Your task to perform on an android device: Empty the shopping cart on target. Add usb-c to usb-a to the cart on target Image 0: 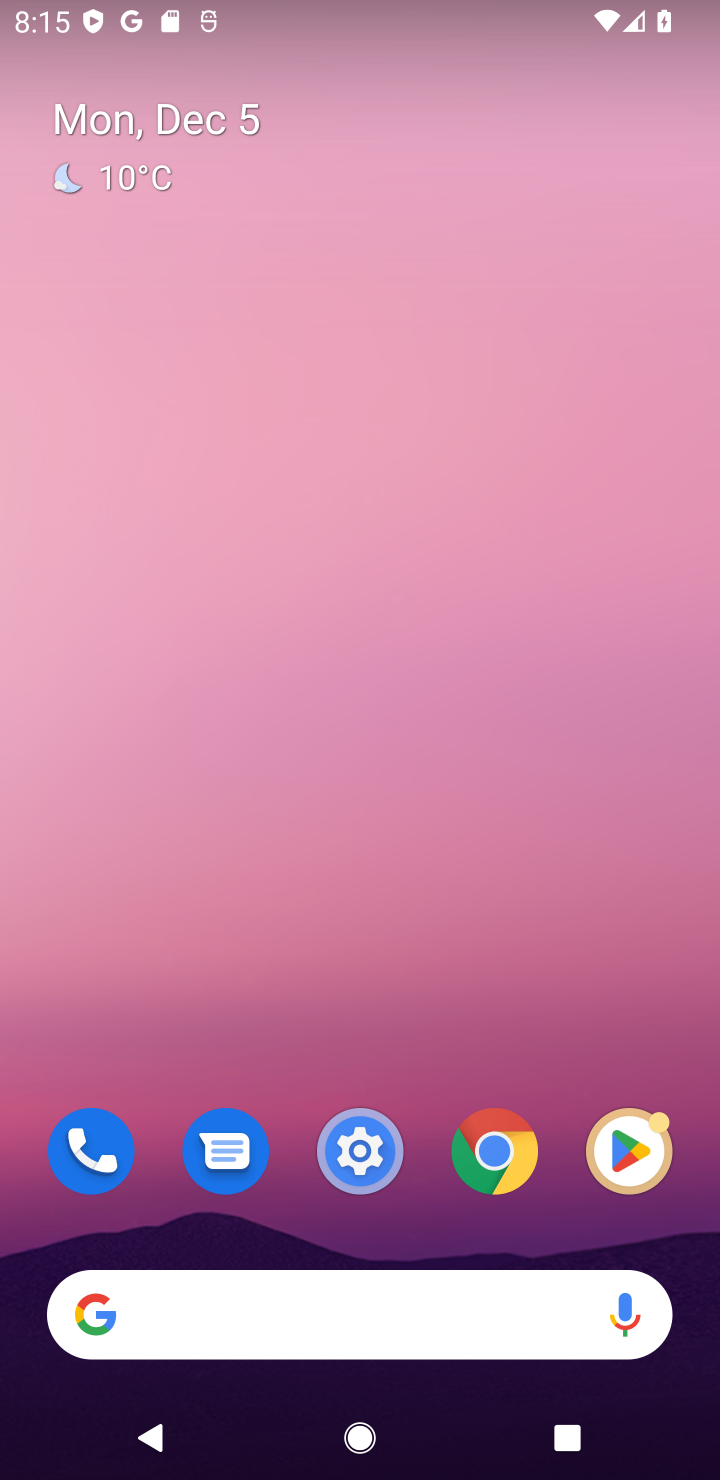
Step 0: click (330, 1267)
Your task to perform on an android device: Empty the shopping cart on target. Add usb-c to usb-a to the cart on target Image 1: 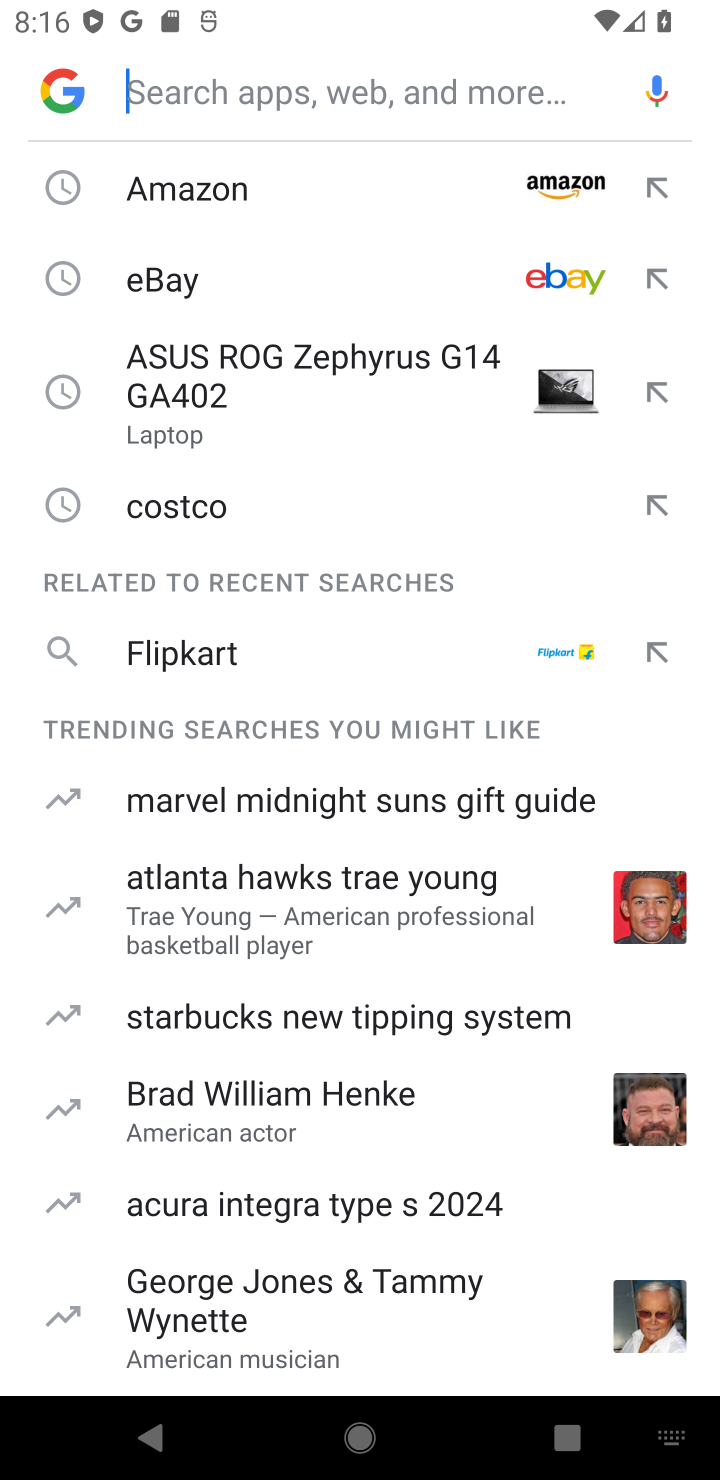
Step 1: type "target"
Your task to perform on an android device: Empty the shopping cart on target. Add usb-c to usb-a to the cart on target Image 2: 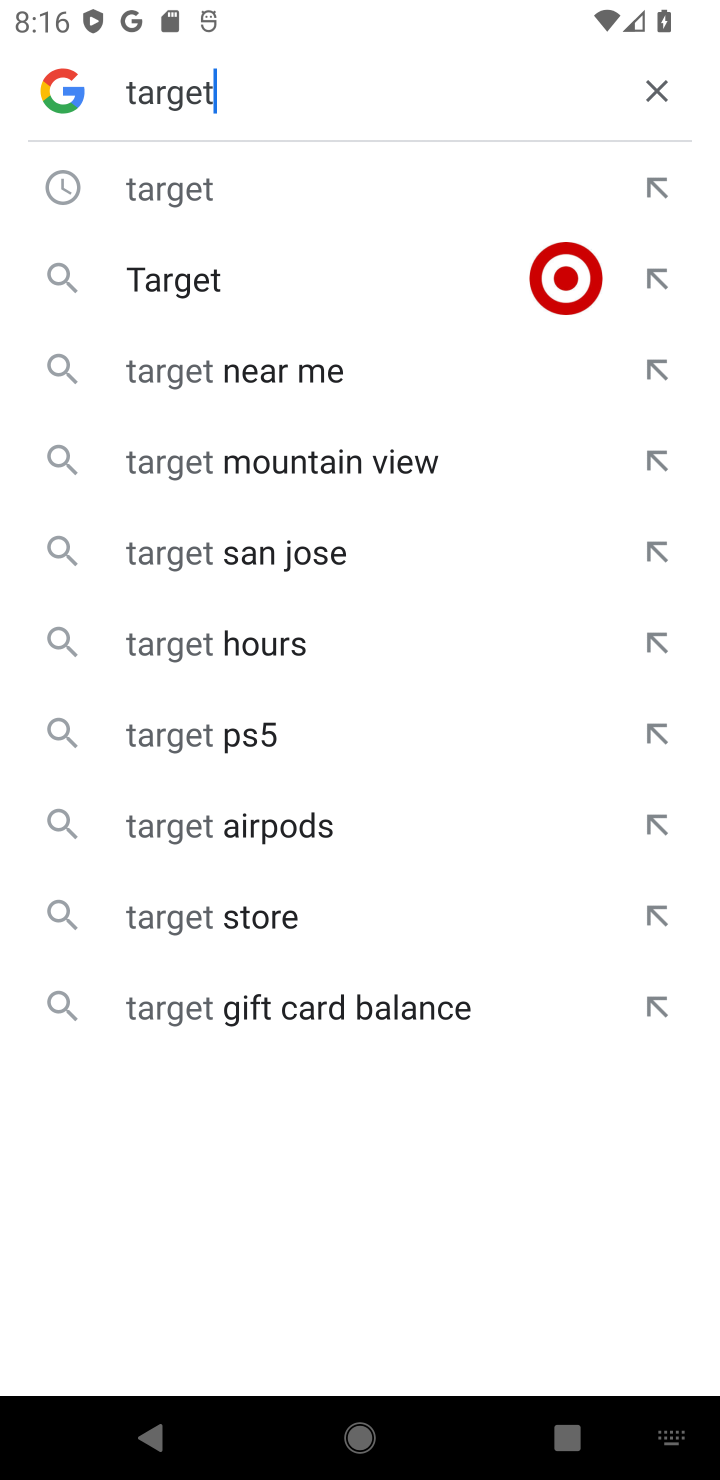
Step 2: click (188, 244)
Your task to perform on an android device: Empty the shopping cart on target. Add usb-c to usb-a to the cart on target Image 3: 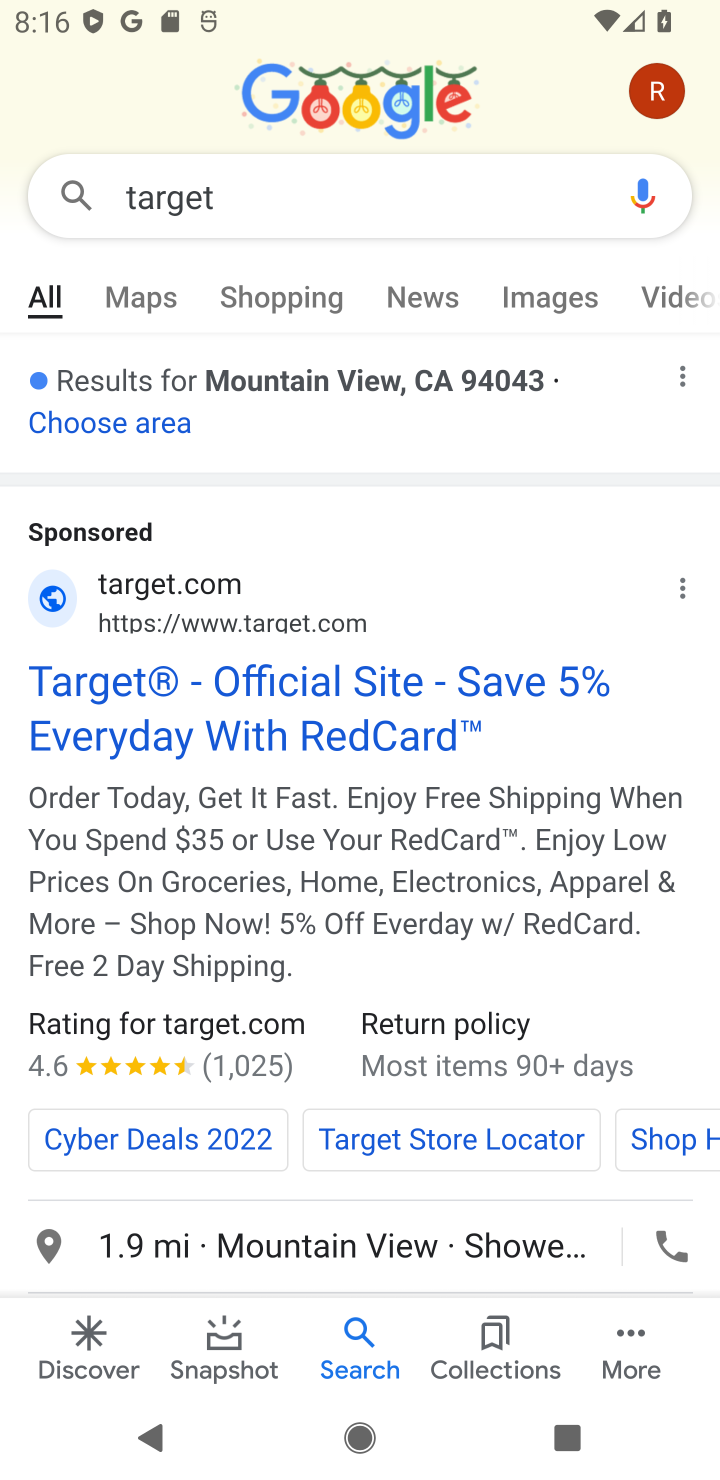
Step 3: click (245, 683)
Your task to perform on an android device: Empty the shopping cart on target. Add usb-c to usb-a to the cart on target Image 4: 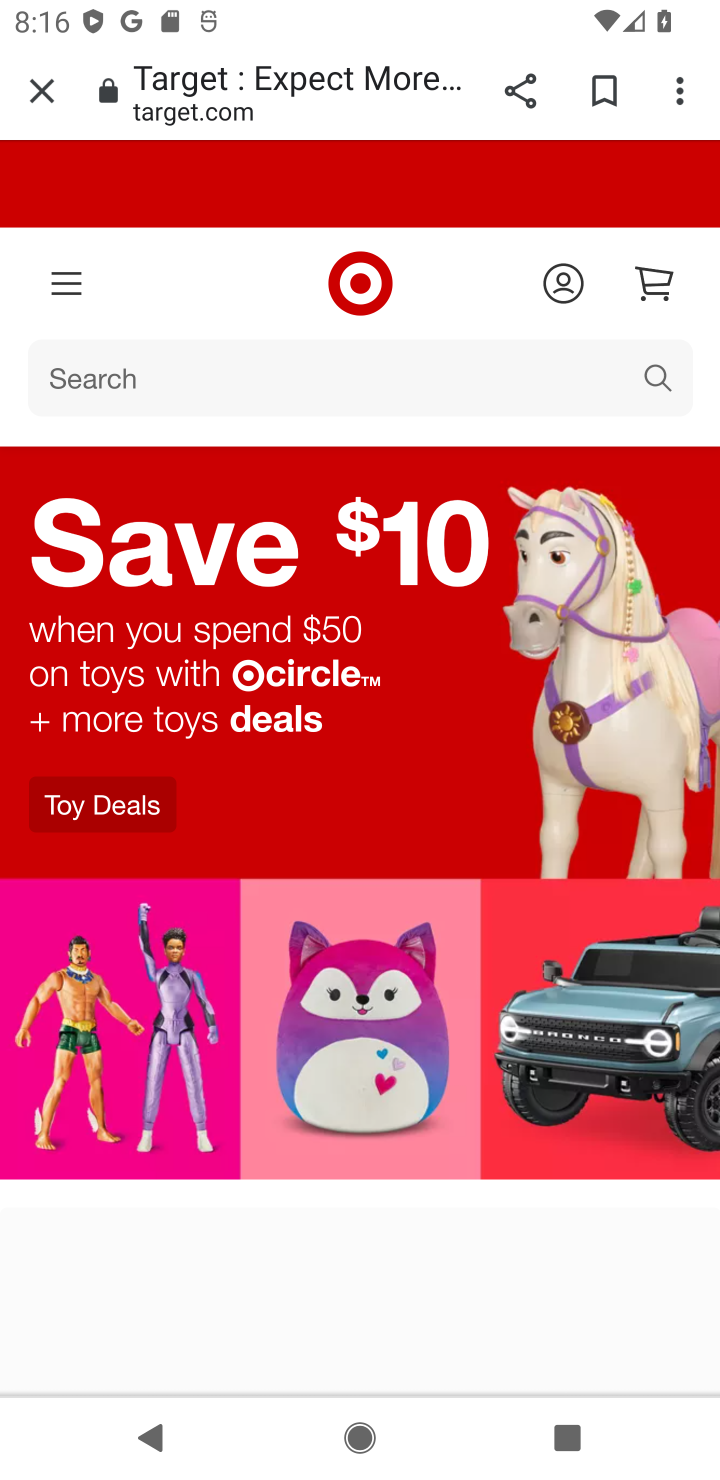
Step 4: click (282, 394)
Your task to perform on an android device: Empty the shopping cart on target. Add usb-c to usb-a to the cart on target Image 5: 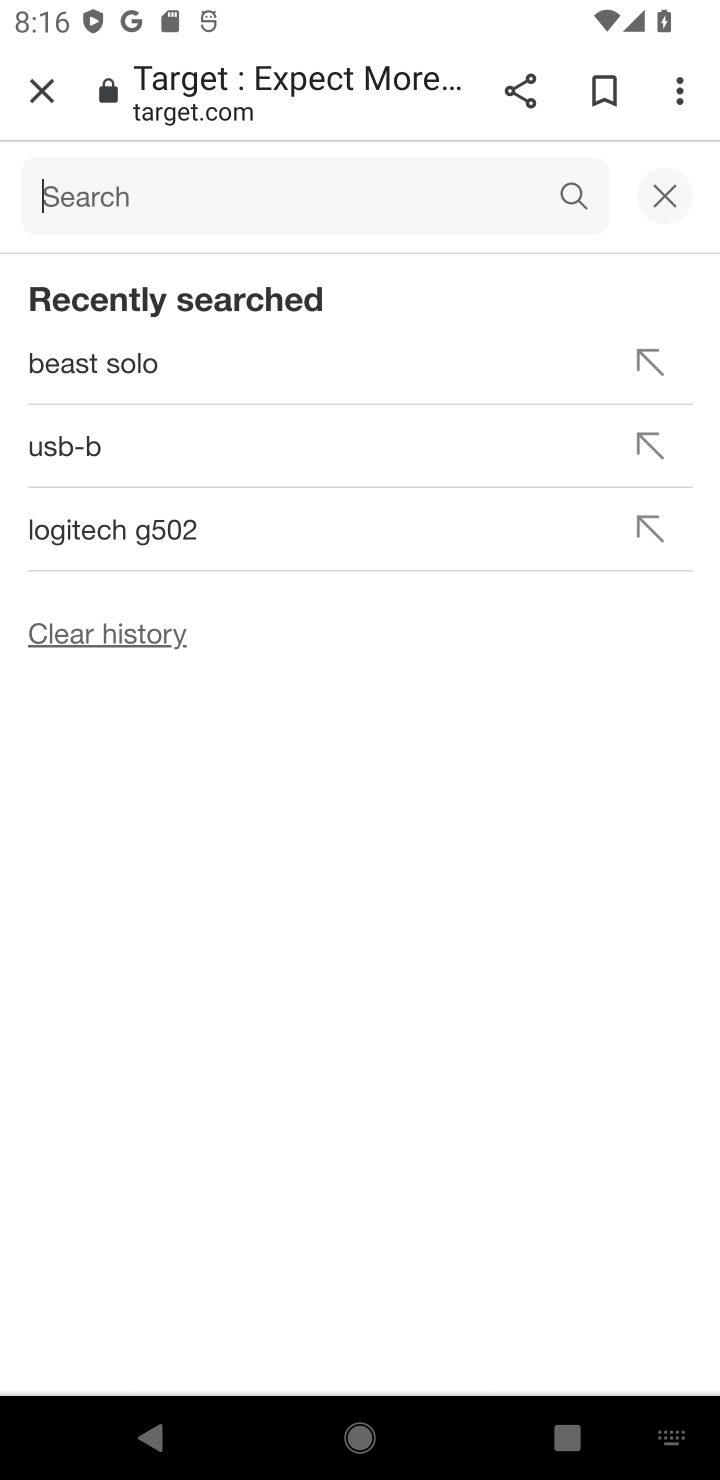
Step 5: type "usb-c to usb-a"
Your task to perform on an android device: Empty the shopping cart on target. Add usb-c to usb-a to the cart on target Image 6: 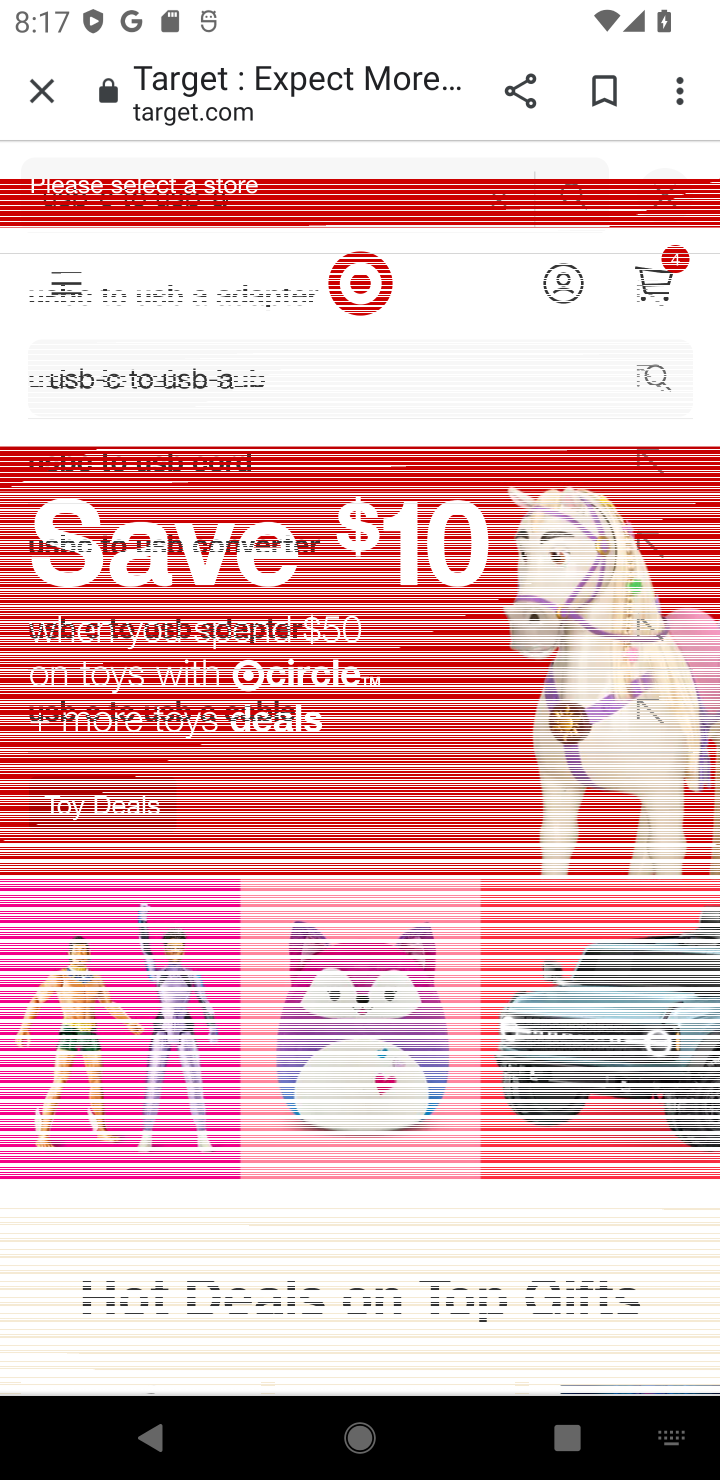
Step 6: click (579, 206)
Your task to perform on an android device: Empty the shopping cart on target. Add usb-c to usb-a to the cart on target Image 7: 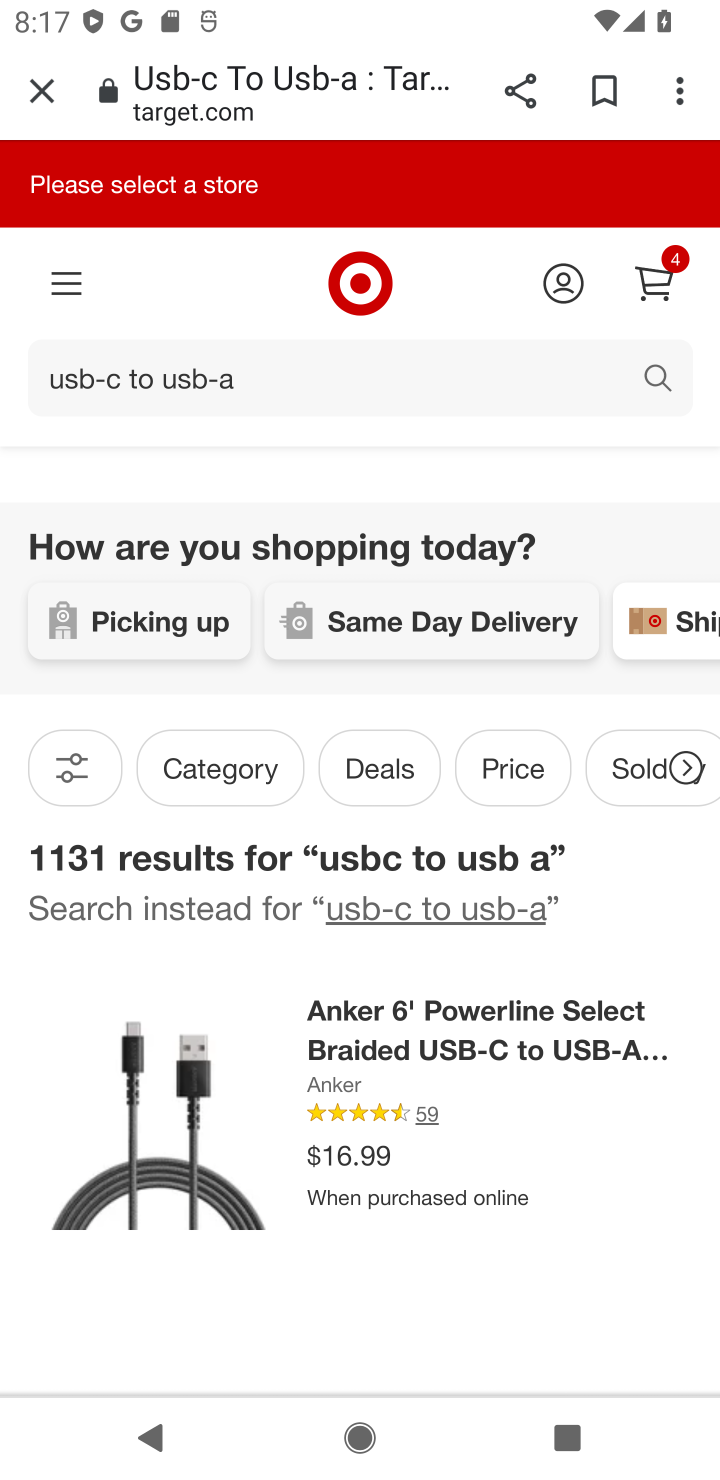
Step 7: click (305, 1059)
Your task to perform on an android device: Empty the shopping cart on target. Add usb-c to usb-a to the cart on target Image 8: 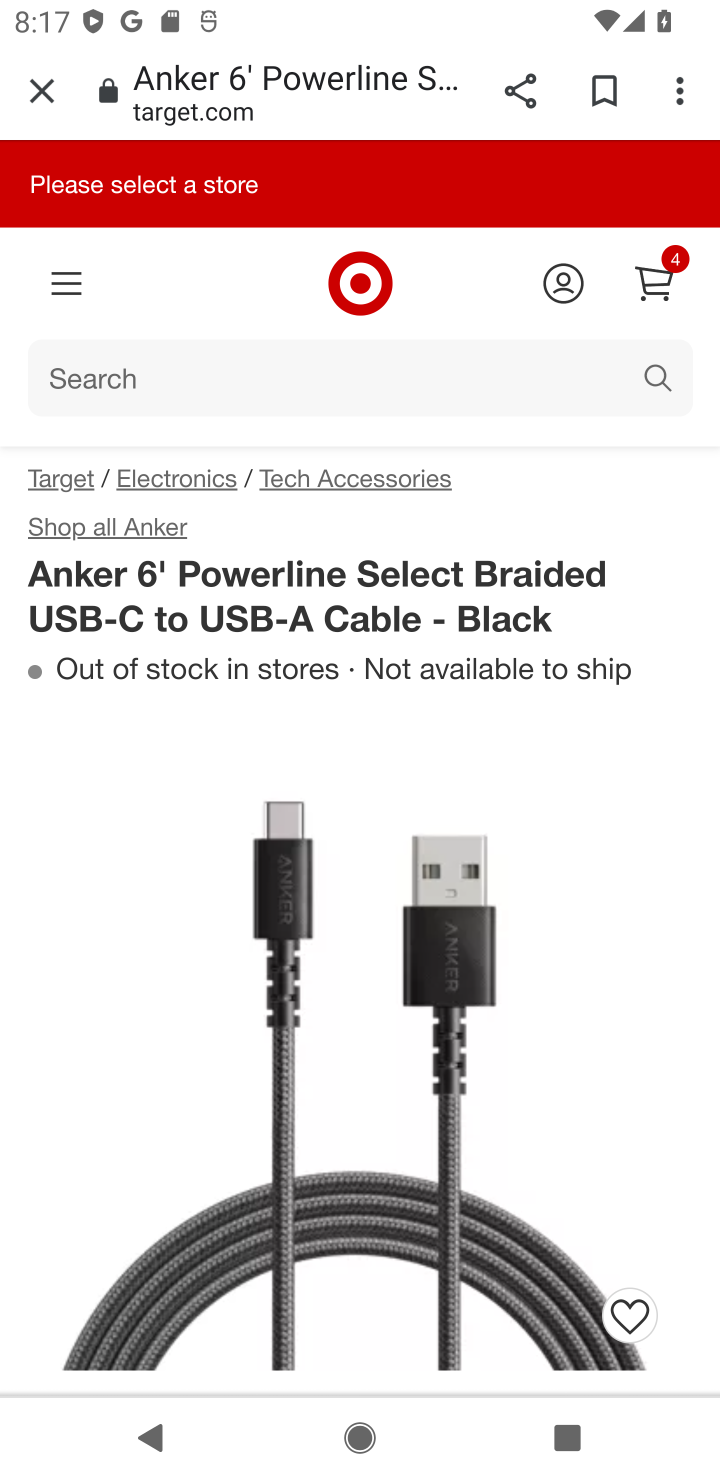
Step 8: drag from (334, 1092) to (467, 339)
Your task to perform on an android device: Empty the shopping cart on target. Add usb-c to usb-a to the cart on target Image 9: 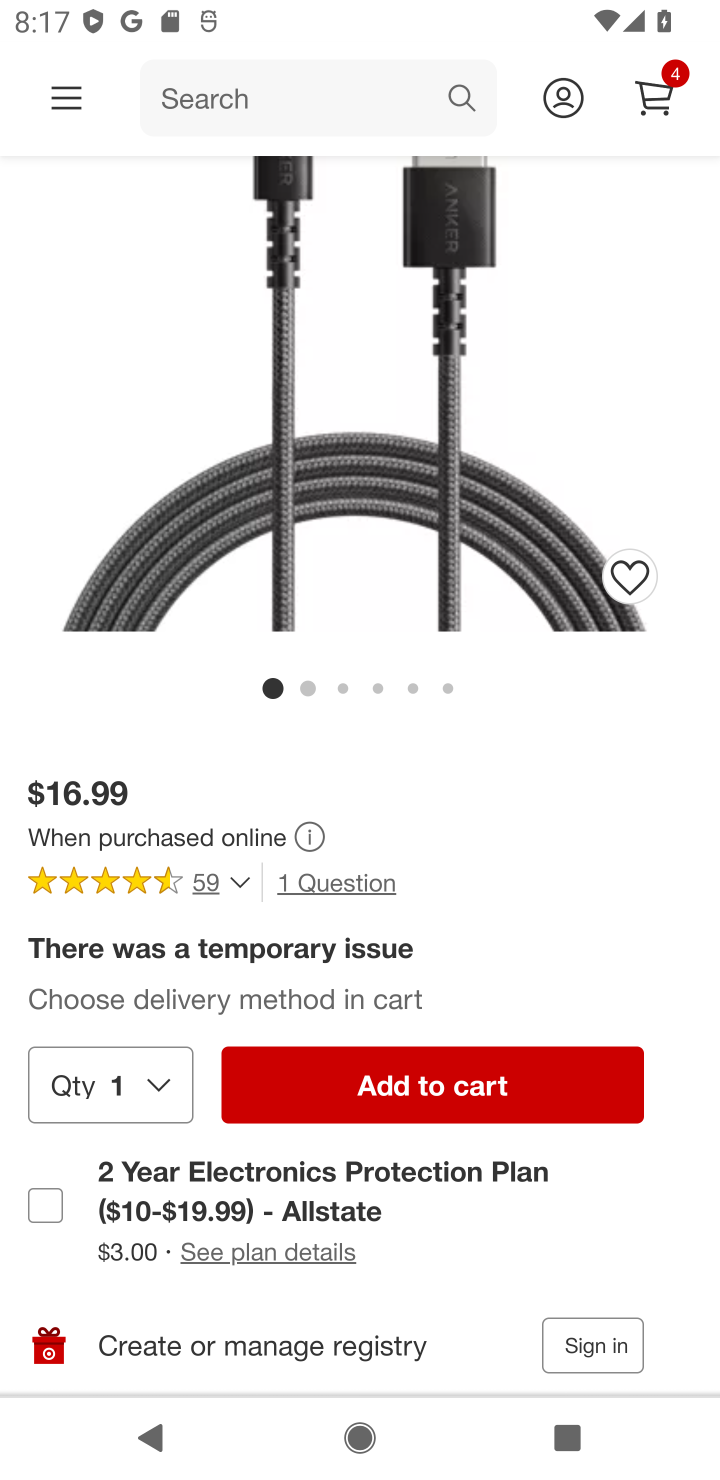
Step 9: click (465, 1068)
Your task to perform on an android device: Empty the shopping cart on target. Add usb-c to usb-a to the cart on target Image 10: 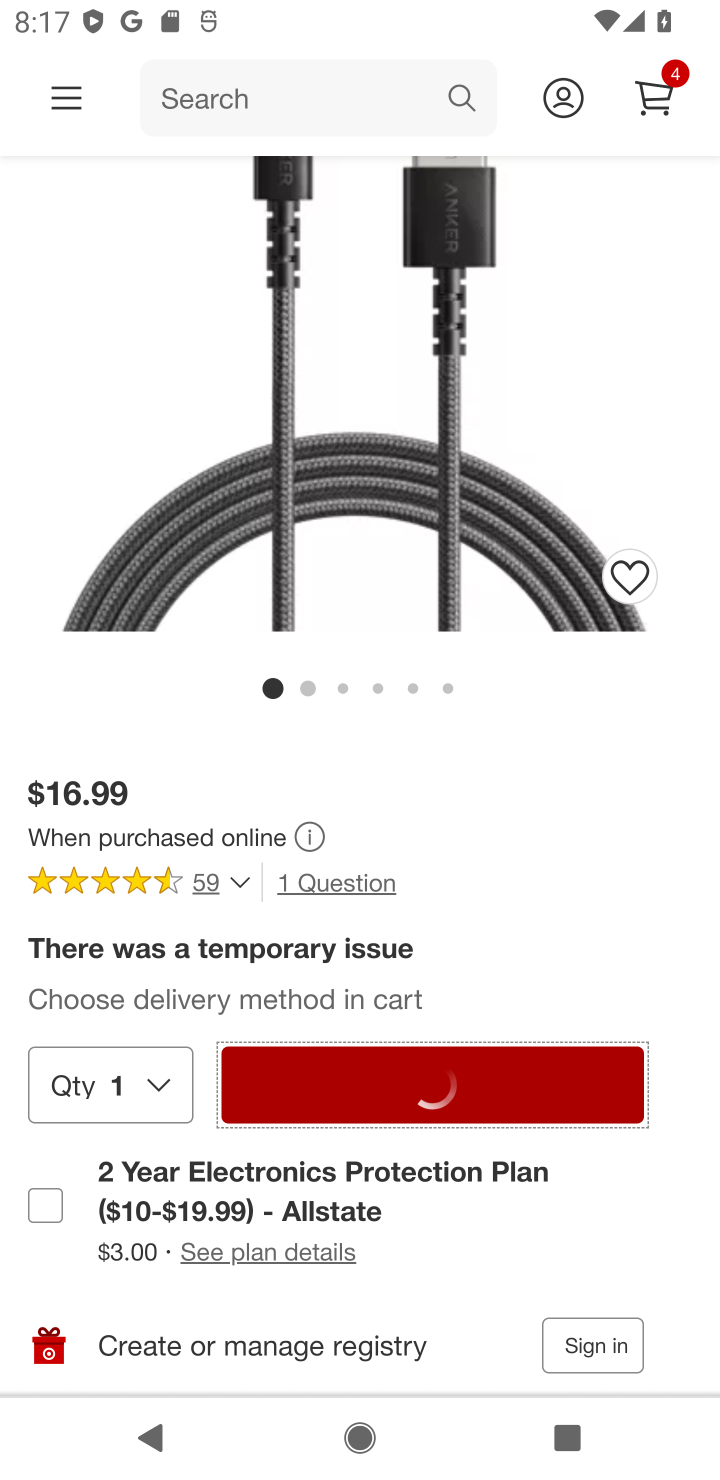
Step 10: task complete